Your task to perform on an android device: set an alarm Image 0: 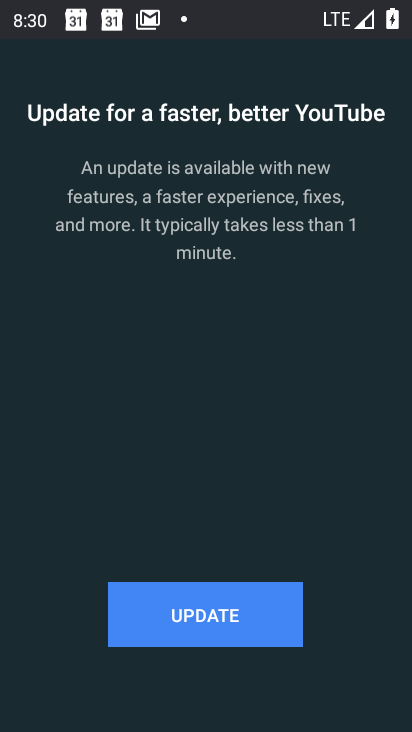
Step 0: press back button
Your task to perform on an android device: set an alarm Image 1: 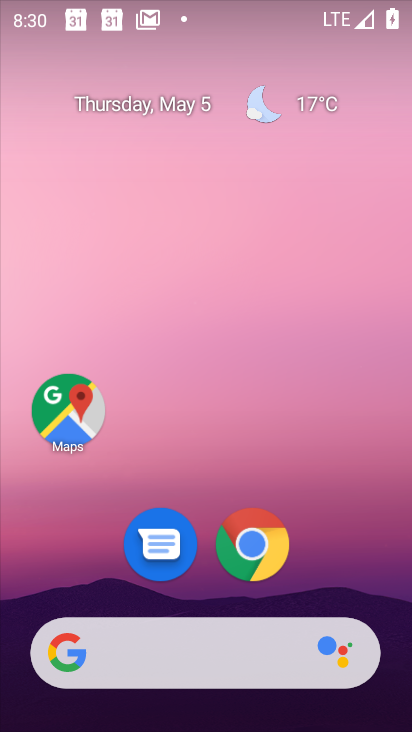
Step 1: drag from (338, 546) to (367, 98)
Your task to perform on an android device: set an alarm Image 2: 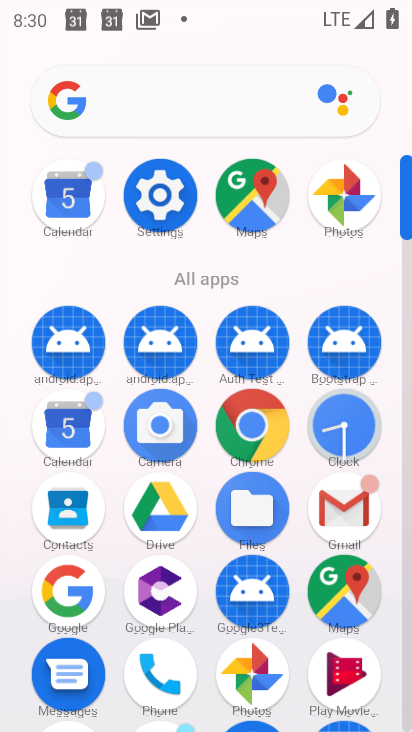
Step 2: click (334, 419)
Your task to perform on an android device: set an alarm Image 3: 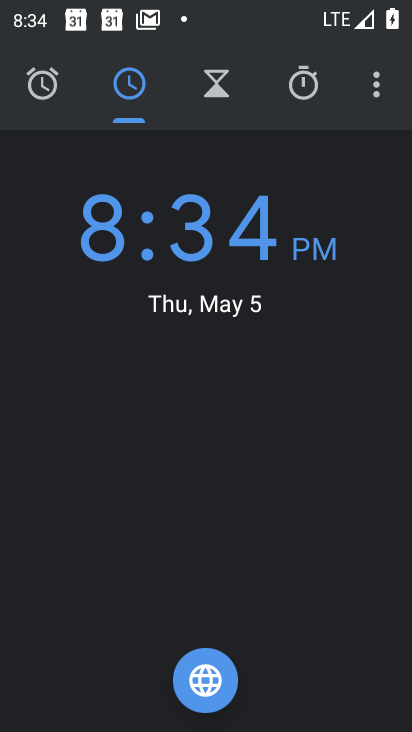
Step 3: click (76, 110)
Your task to perform on an android device: set an alarm Image 4: 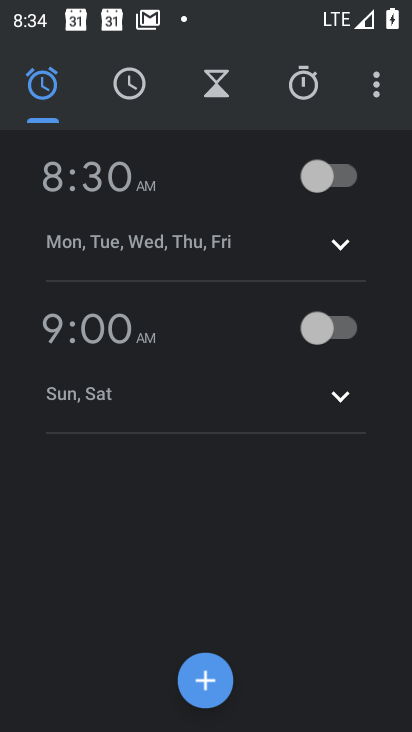
Step 4: click (61, 101)
Your task to perform on an android device: set an alarm Image 5: 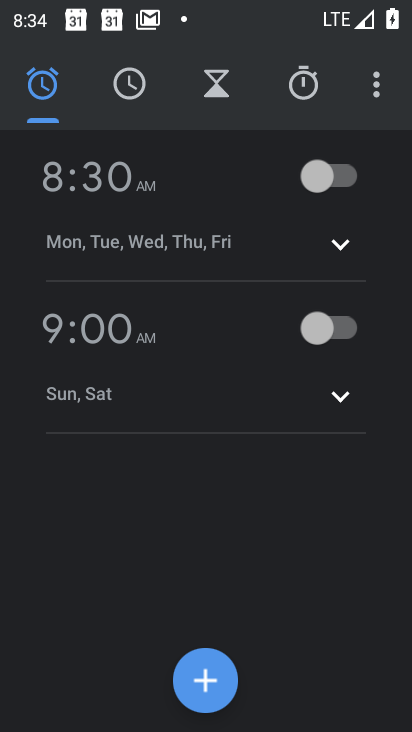
Step 5: click (336, 180)
Your task to perform on an android device: set an alarm Image 6: 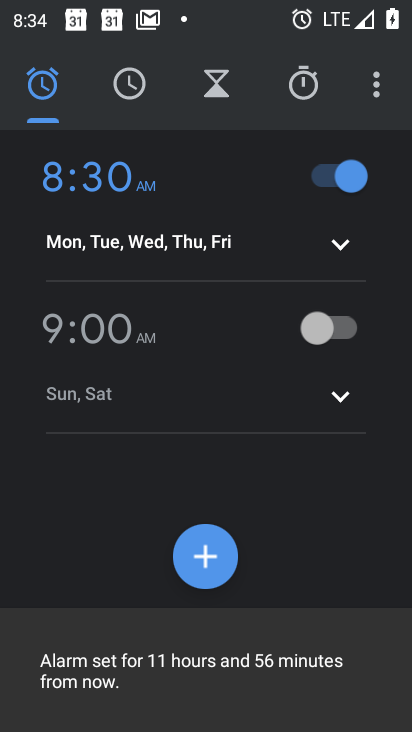
Step 6: task complete